Your task to perform on an android device: Go to battery settings Image 0: 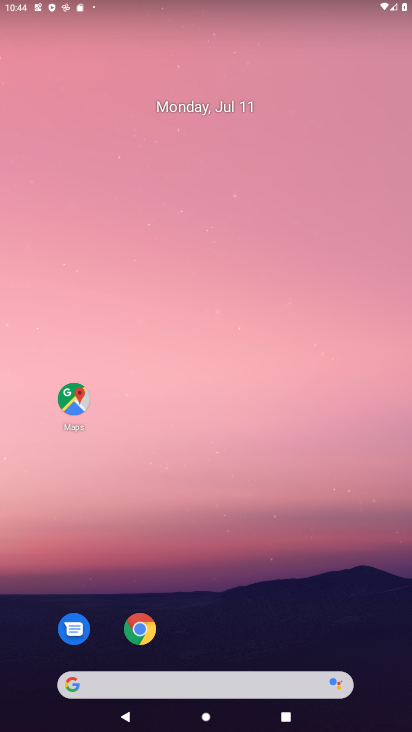
Step 0: drag from (245, 632) to (220, 125)
Your task to perform on an android device: Go to battery settings Image 1: 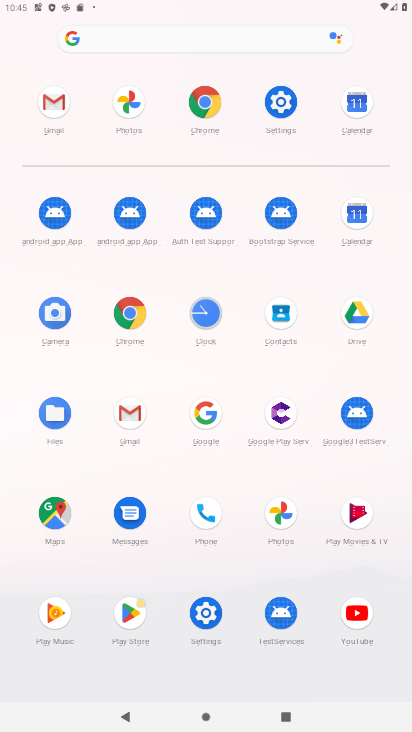
Step 1: click (277, 125)
Your task to perform on an android device: Go to battery settings Image 2: 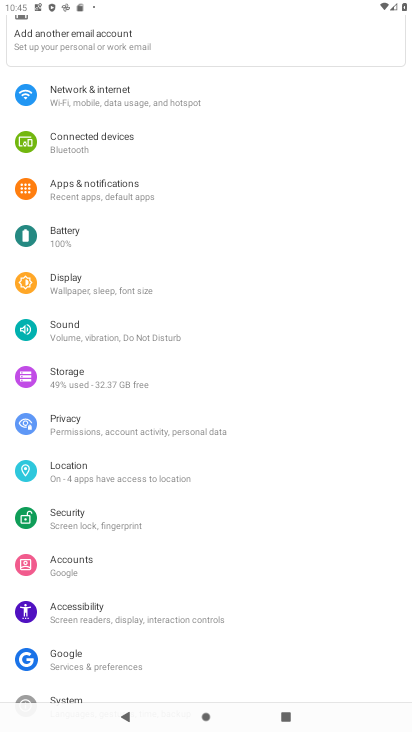
Step 2: drag from (96, 636) to (78, 434)
Your task to perform on an android device: Go to battery settings Image 3: 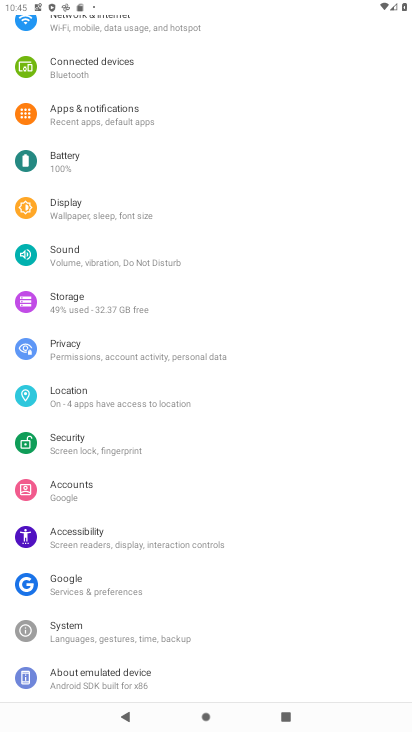
Step 3: click (129, 156)
Your task to perform on an android device: Go to battery settings Image 4: 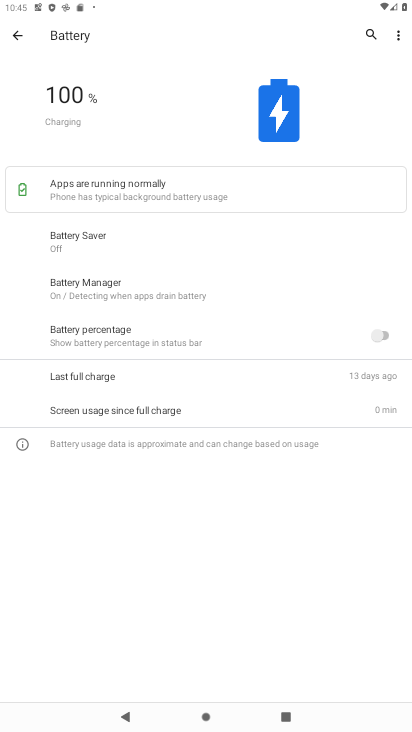
Step 4: task complete